Your task to perform on an android device: check battery use Image 0: 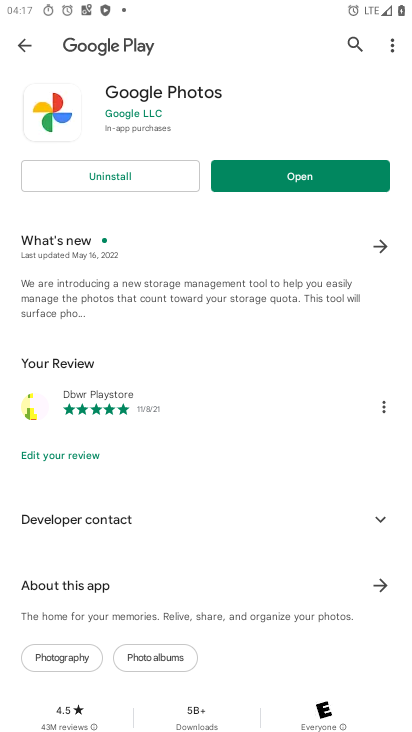
Step 0: press home button
Your task to perform on an android device: check battery use Image 1: 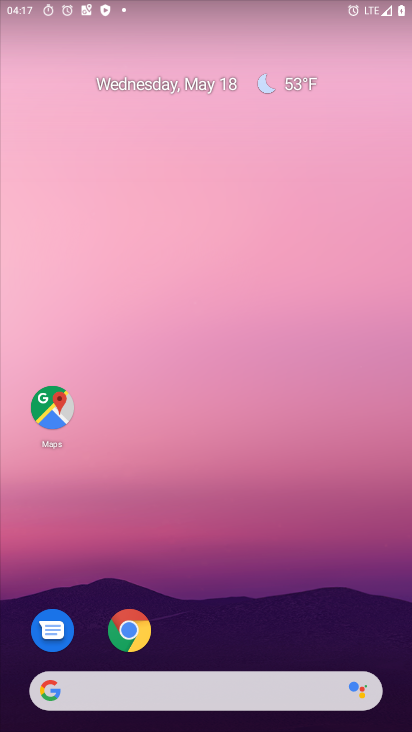
Step 1: drag from (184, 728) to (172, 297)
Your task to perform on an android device: check battery use Image 2: 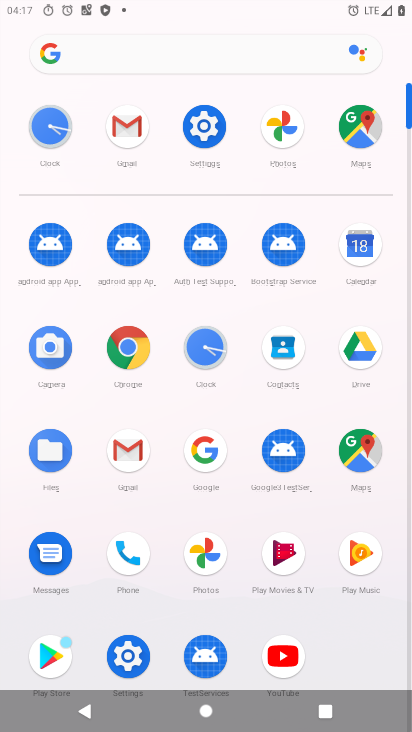
Step 2: click (197, 149)
Your task to perform on an android device: check battery use Image 3: 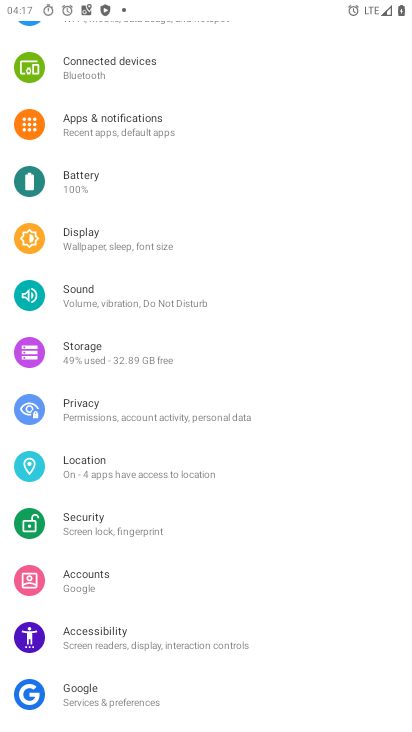
Step 3: click (90, 175)
Your task to perform on an android device: check battery use Image 4: 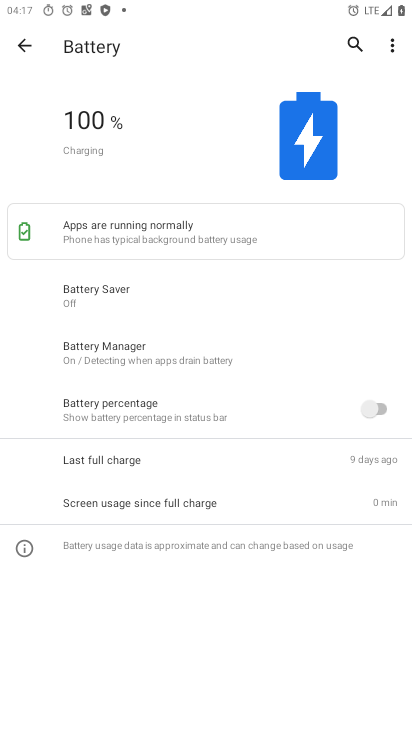
Step 4: click (392, 43)
Your task to perform on an android device: check battery use Image 5: 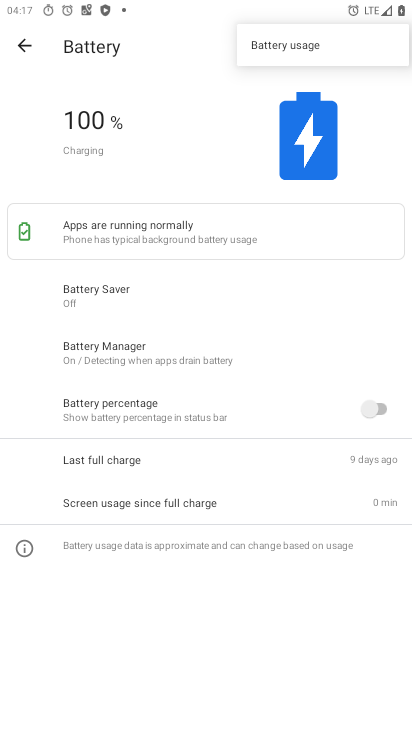
Step 5: click (282, 46)
Your task to perform on an android device: check battery use Image 6: 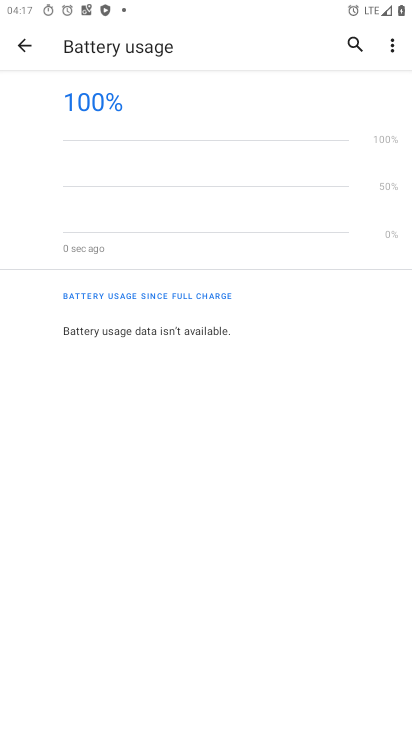
Step 6: task complete